Your task to perform on an android device: open device folders in google photos Image 0: 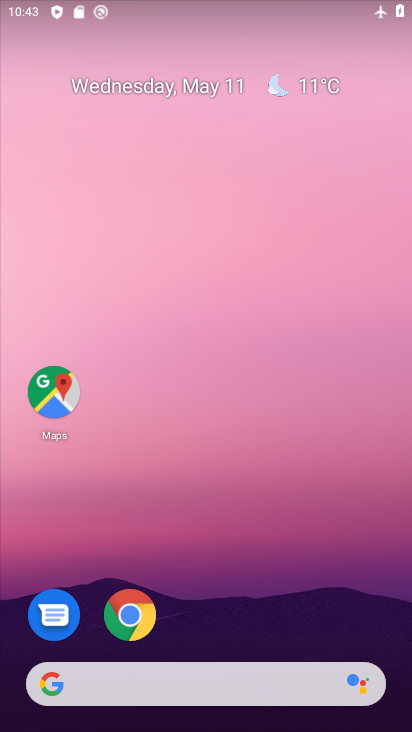
Step 0: drag from (297, 620) to (236, 61)
Your task to perform on an android device: open device folders in google photos Image 1: 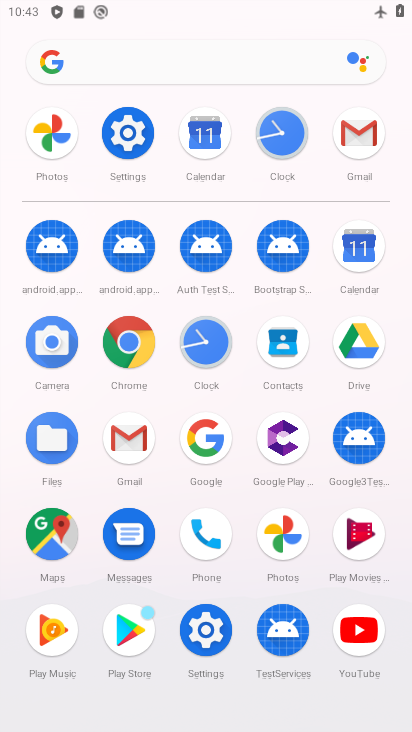
Step 1: click (50, 123)
Your task to perform on an android device: open device folders in google photos Image 2: 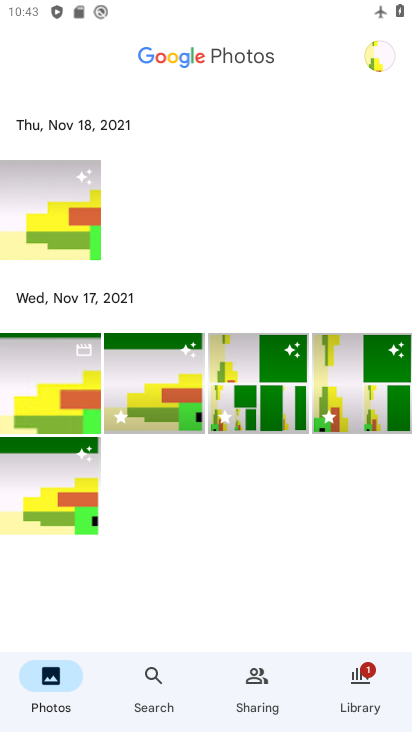
Step 2: click (390, 48)
Your task to perform on an android device: open device folders in google photos Image 3: 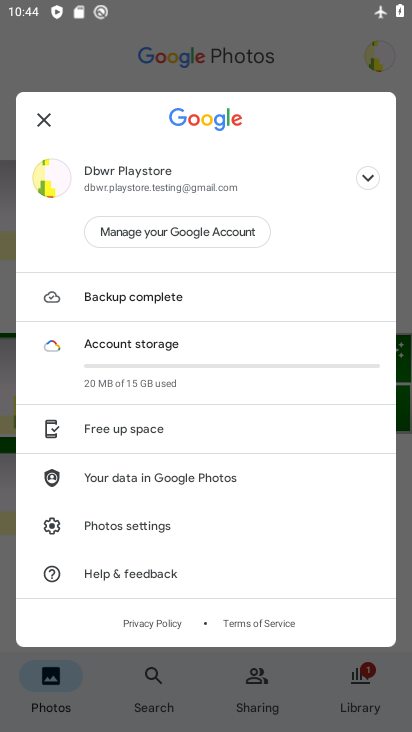
Step 3: task complete